Your task to perform on an android device: Open wifi settings Image 0: 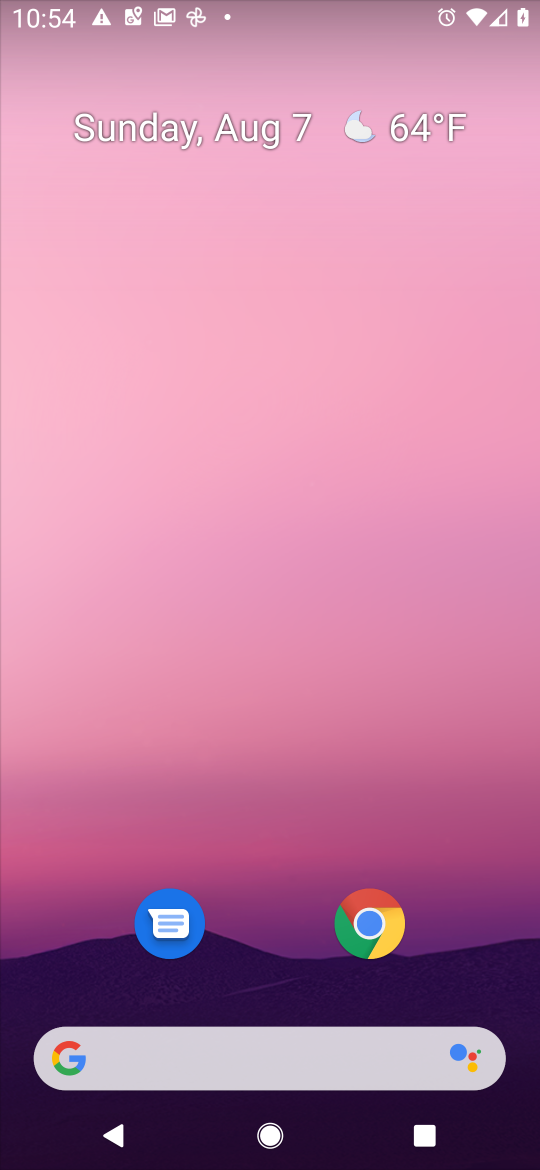
Step 0: drag from (502, 954) to (248, 14)
Your task to perform on an android device: Open wifi settings Image 1: 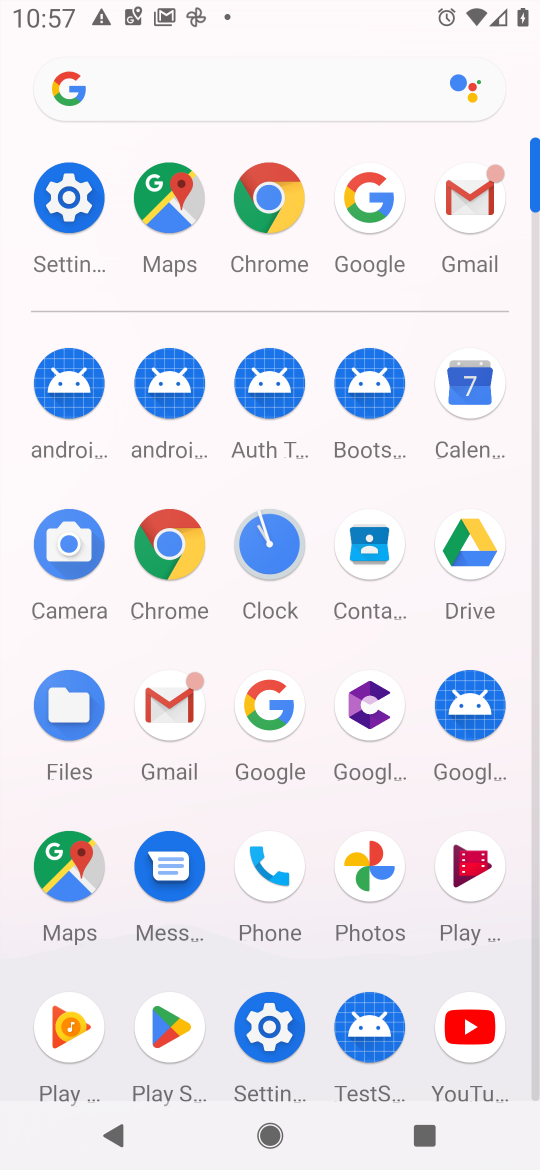
Step 1: click (257, 1031)
Your task to perform on an android device: Open wifi settings Image 2: 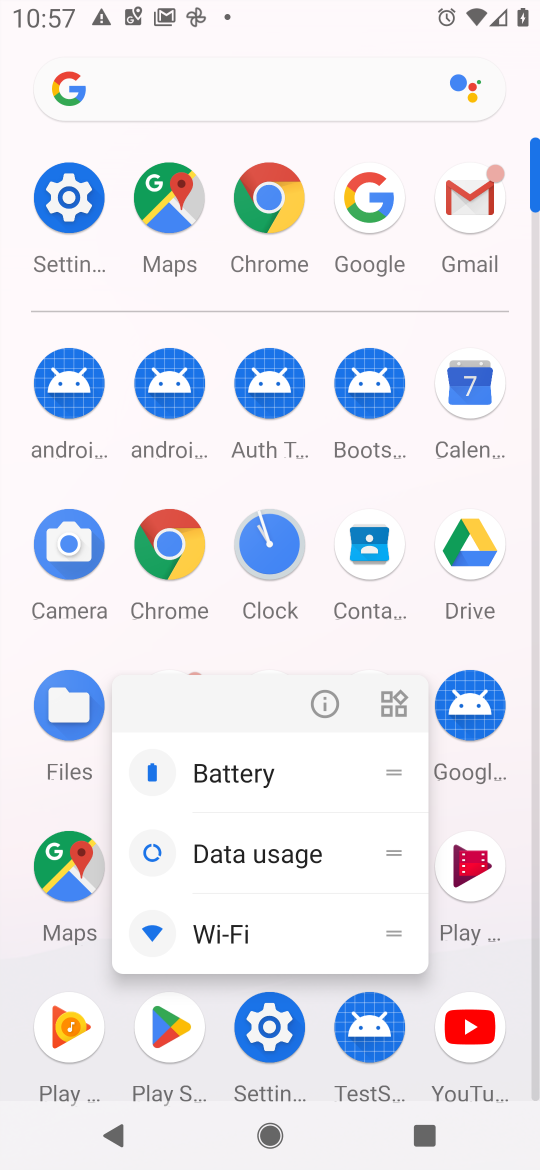
Step 2: click (257, 1031)
Your task to perform on an android device: Open wifi settings Image 3: 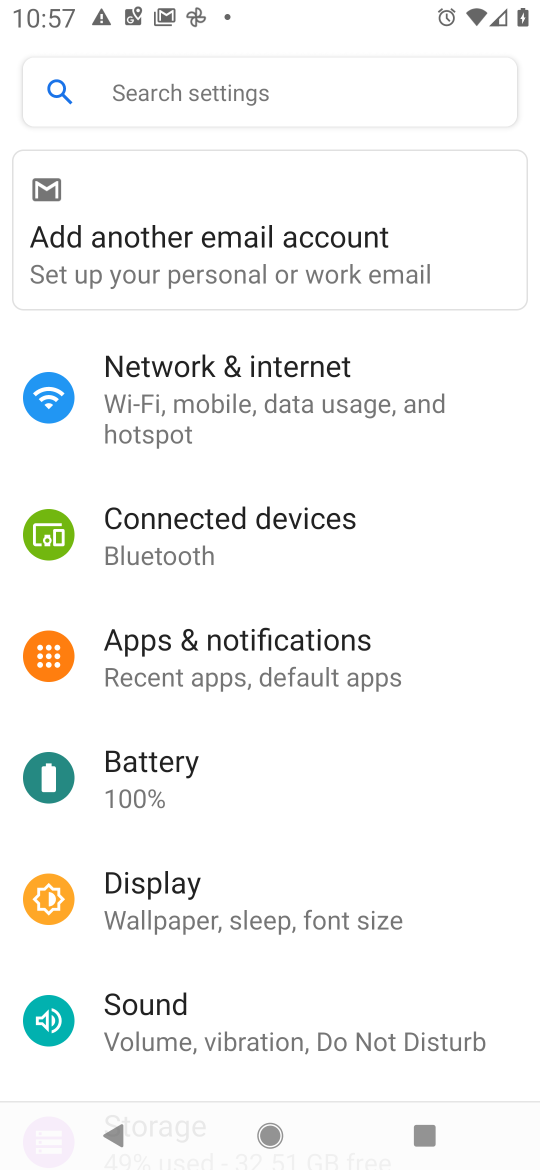
Step 3: click (239, 433)
Your task to perform on an android device: Open wifi settings Image 4: 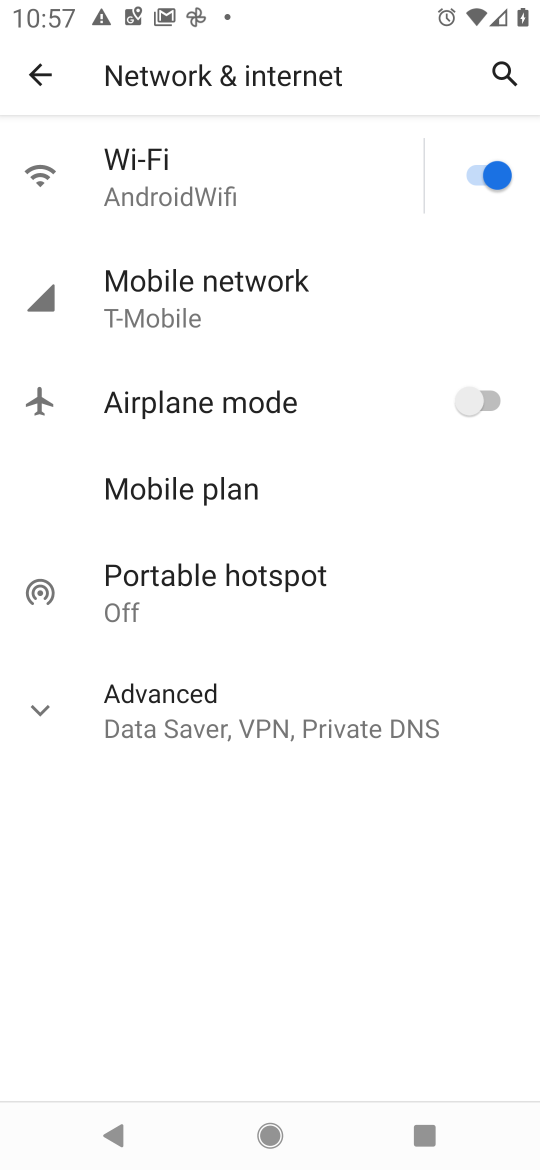
Step 4: click (210, 189)
Your task to perform on an android device: Open wifi settings Image 5: 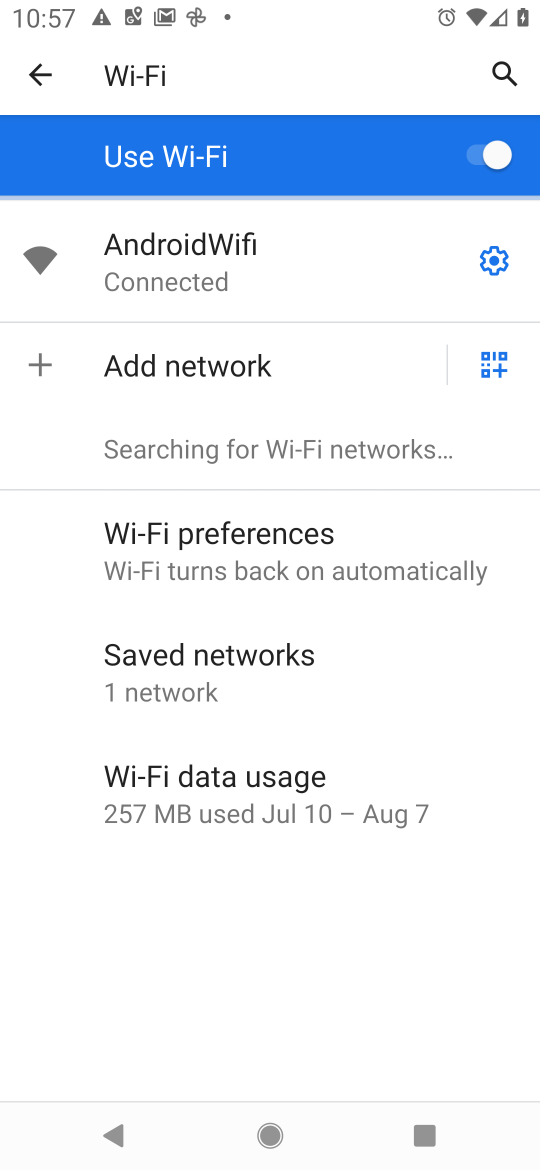
Step 5: task complete